Your task to perform on an android device: Open the Play Movies app and select the watchlist tab. Image 0: 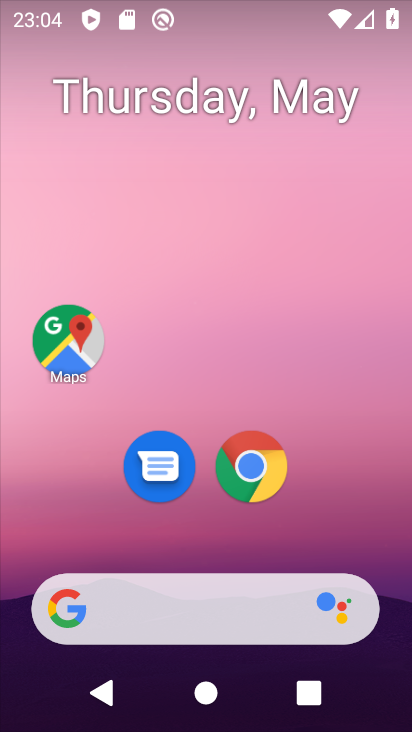
Step 0: drag from (353, 539) to (312, 131)
Your task to perform on an android device: Open the Play Movies app and select the watchlist tab. Image 1: 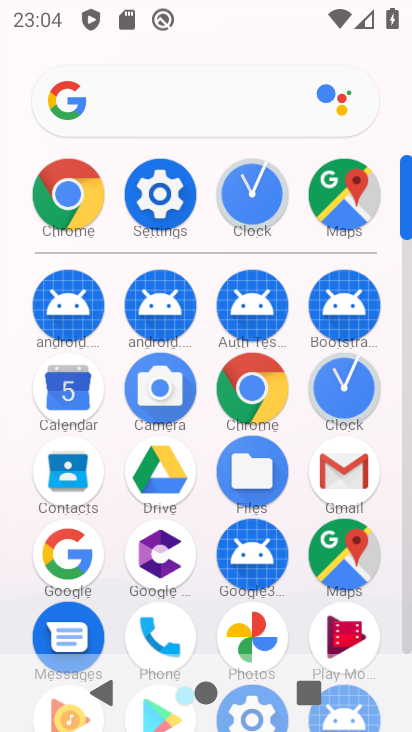
Step 1: click (354, 623)
Your task to perform on an android device: Open the Play Movies app and select the watchlist tab. Image 2: 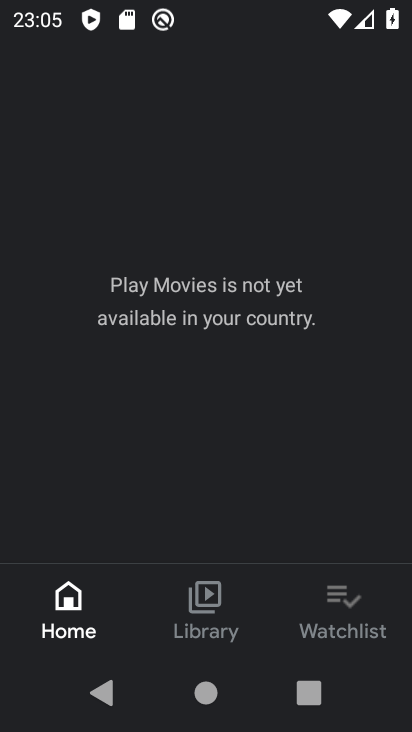
Step 2: click (344, 618)
Your task to perform on an android device: Open the Play Movies app and select the watchlist tab. Image 3: 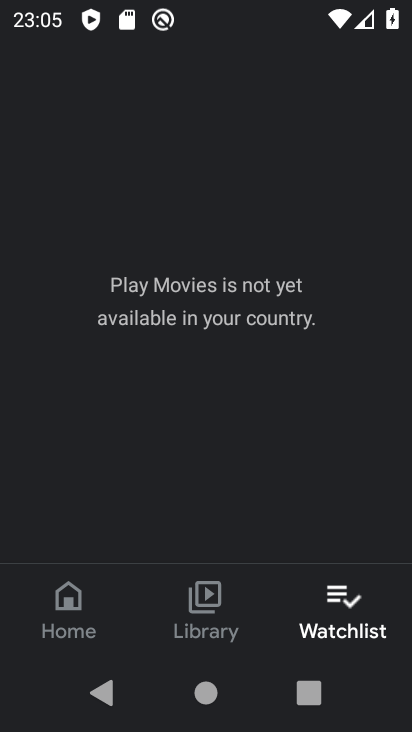
Step 3: task complete